Your task to perform on an android device: Go to calendar. Show me events next week Image 0: 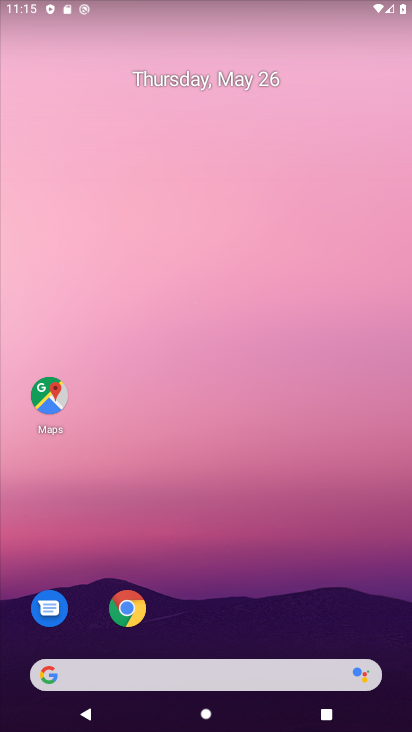
Step 0: drag from (271, 582) to (271, 42)
Your task to perform on an android device: Go to calendar. Show me events next week Image 1: 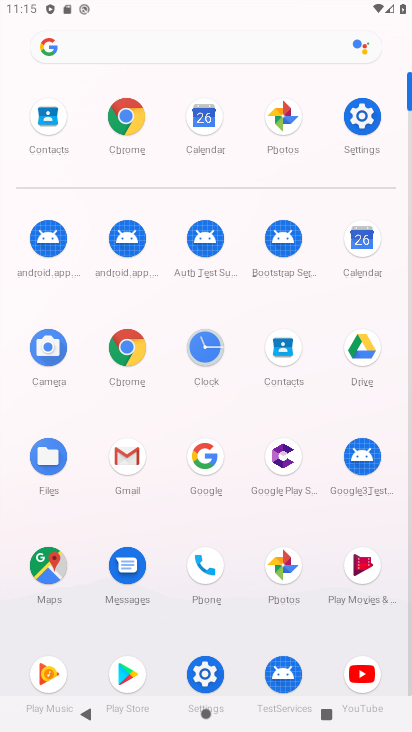
Step 1: click (365, 241)
Your task to perform on an android device: Go to calendar. Show me events next week Image 2: 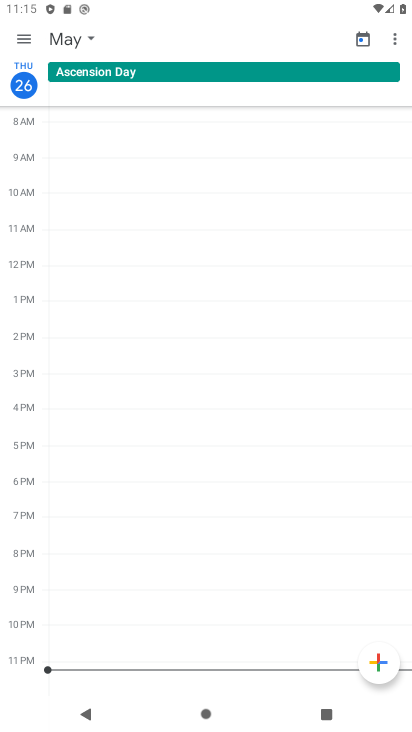
Step 2: click (31, 30)
Your task to perform on an android device: Go to calendar. Show me events next week Image 3: 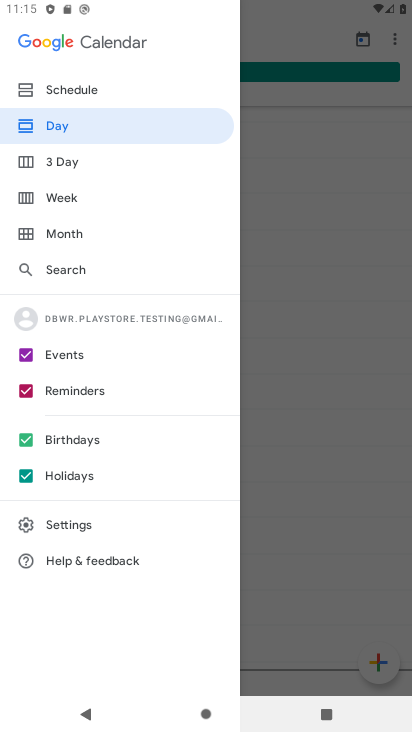
Step 3: click (265, 253)
Your task to perform on an android device: Go to calendar. Show me events next week Image 4: 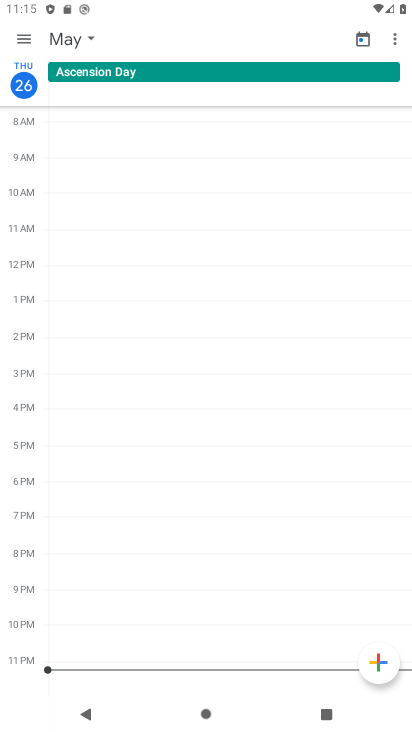
Step 4: click (79, 51)
Your task to perform on an android device: Go to calendar. Show me events next week Image 5: 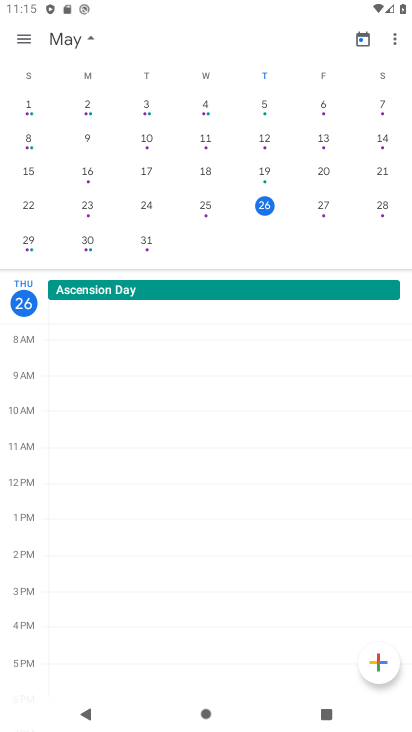
Step 5: drag from (346, 174) to (66, 129)
Your task to perform on an android device: Go to calendar. Show me events next week Image 6: 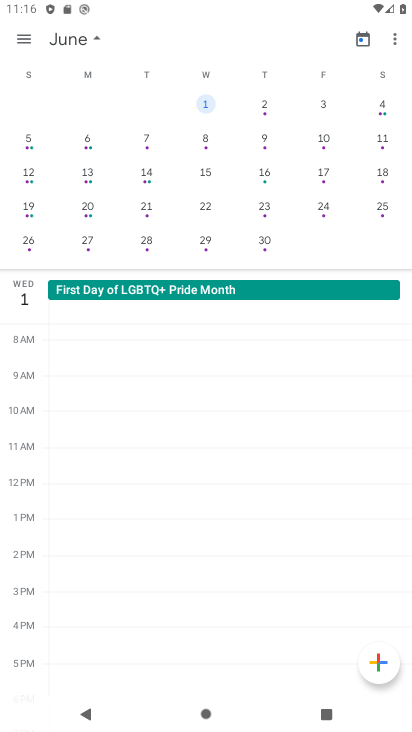
Step 6: click (21, 42)
Your task to perform on an android device: Go to calendar. Show me events next week Image 7: 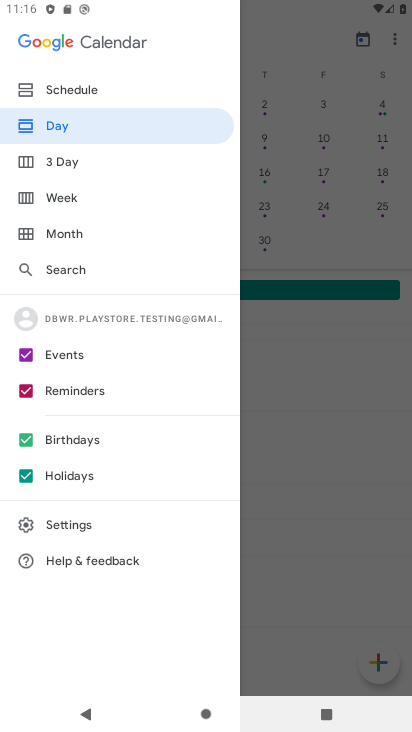
Step 7: click (69, 194)
Your task to perform on an android device: Go to calendar. Show me events next week Image 8: 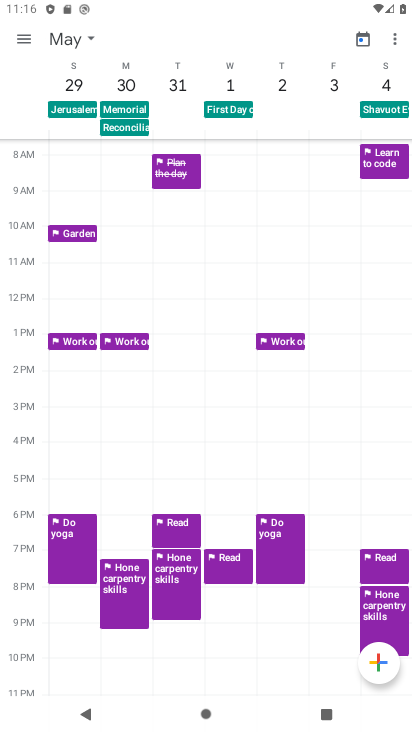
Step 8: task complete